Your task to perform on an android device: manage bookmarks in the chrome app Image 0: 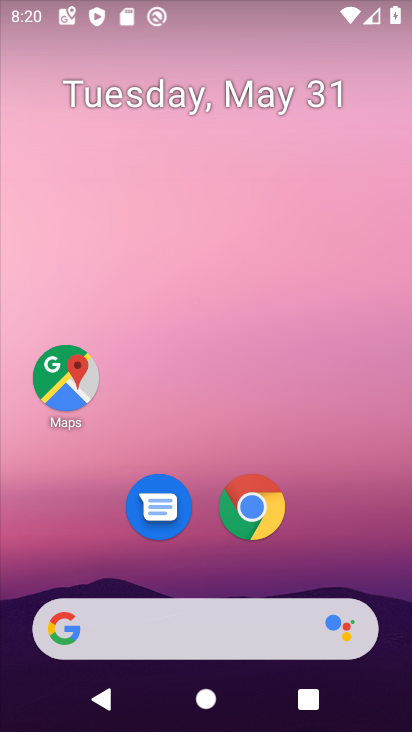
Step 0: click (252, 504)
Your task to perform on an android device: manage bookmarks in the chrome app Image 1: 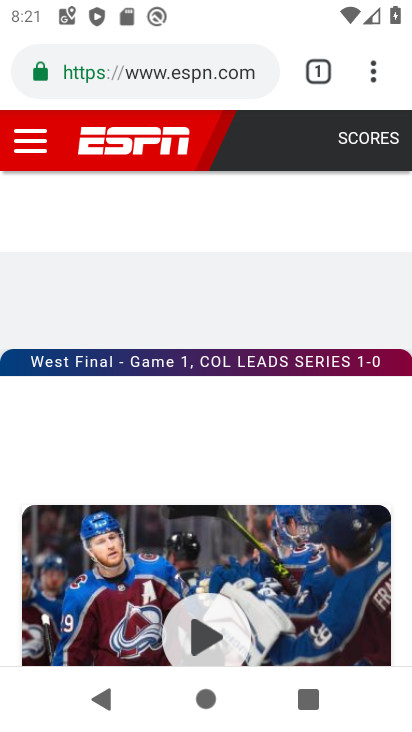
Step 1: drag from (371, 75) to (159, 274)
Your task to perform on an android device: manage bookmarks in the chrome app Image 2: 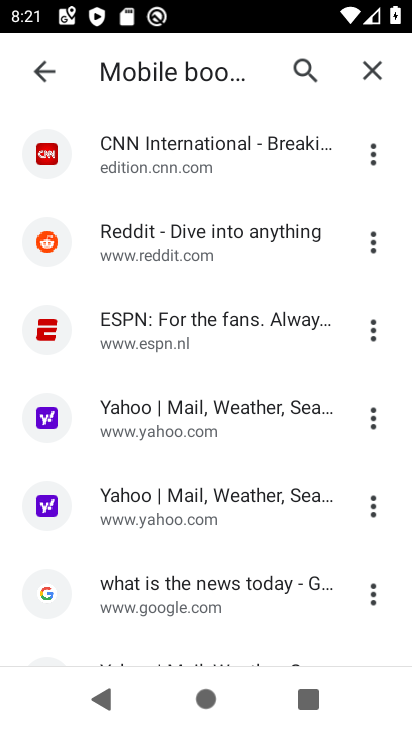
Step 2: click (380, 413)
Your task to perform on an android device: manage bookmarks in the chrome app Image 3: 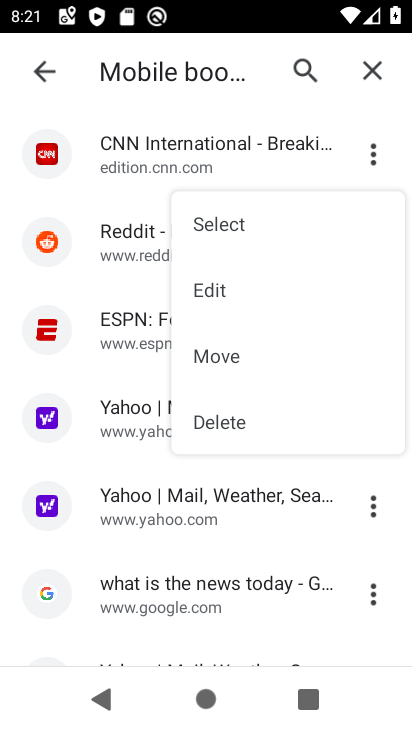
Step 3: click (257, 410)
Your task to perform on an android device: manage bookmarks in the chrome app Image 4: 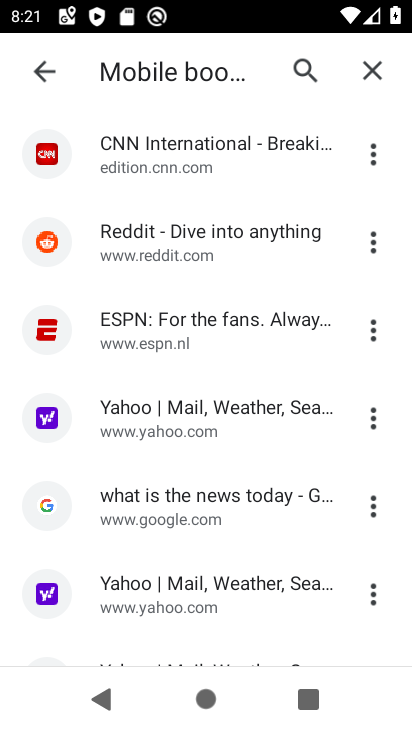
Step 4: task complete